Your task to perform on an android device: Go to Maps Image 0: 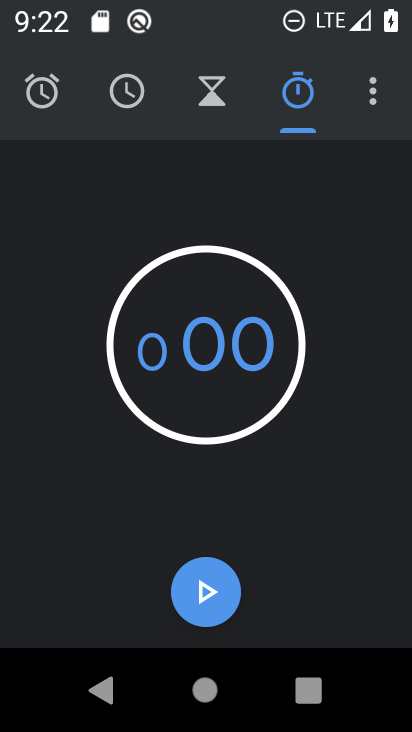
Step 0: press home button
Your task to perform on an android device: Go to Maps Image 1: 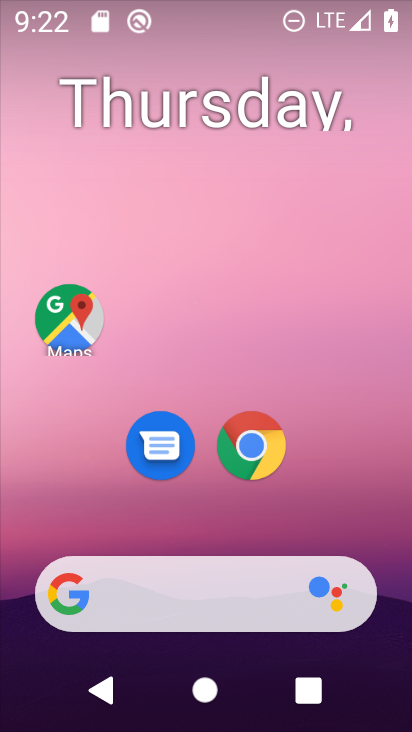
Step 1: drag from (397, 630) to (322, 23)
Your task to perform on an android device: Go to Maps Image 2: 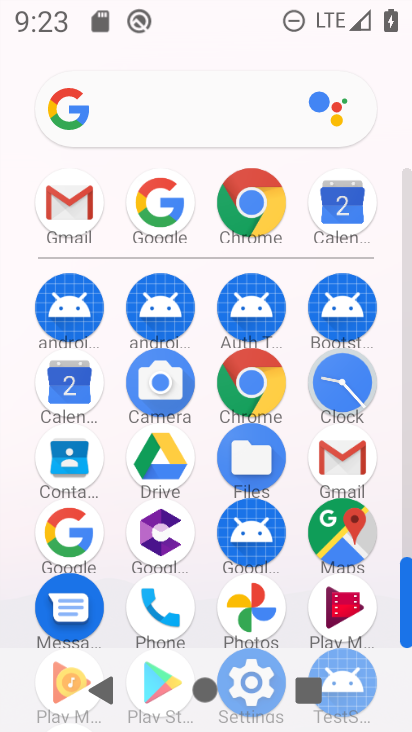
Step 2: click (341, 528)
Your task to perform on an android device: Go to Maps Image 3: 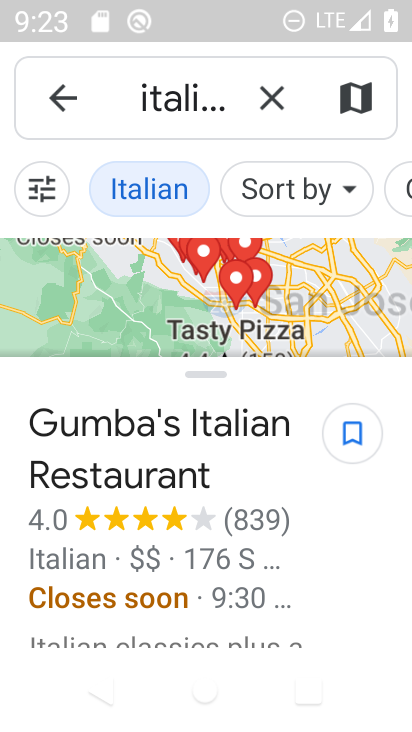
Step 3: click (266, 101)
Your task to perform on an android device: Go to Maps Image 4: 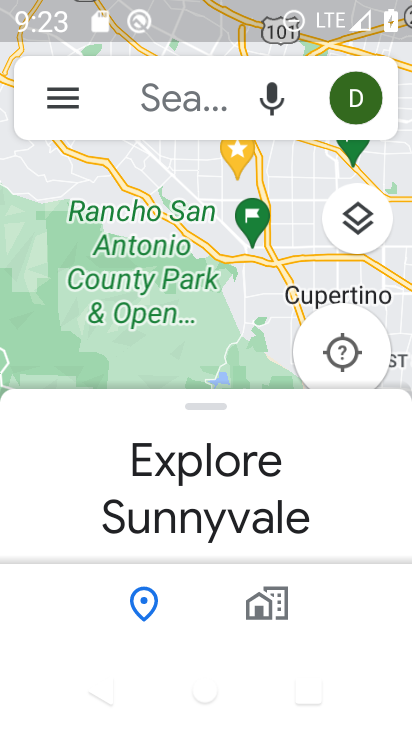
Step 4: task complete